Your task to perform on an android device: turn notification dots off Image 0: 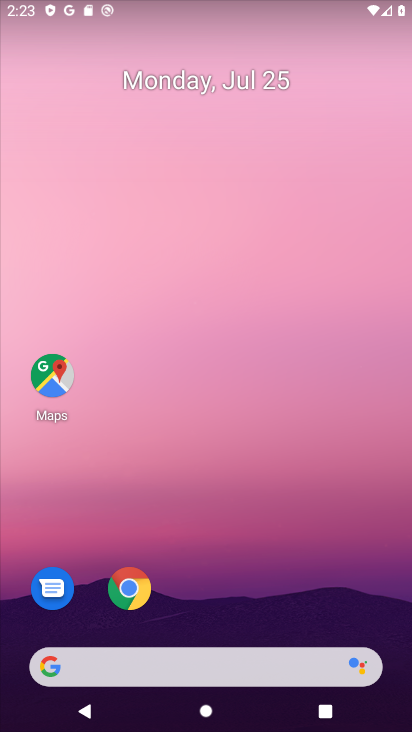
Step 0: press home button
Your task to perform on an android device: turn notification dots off Image 1: 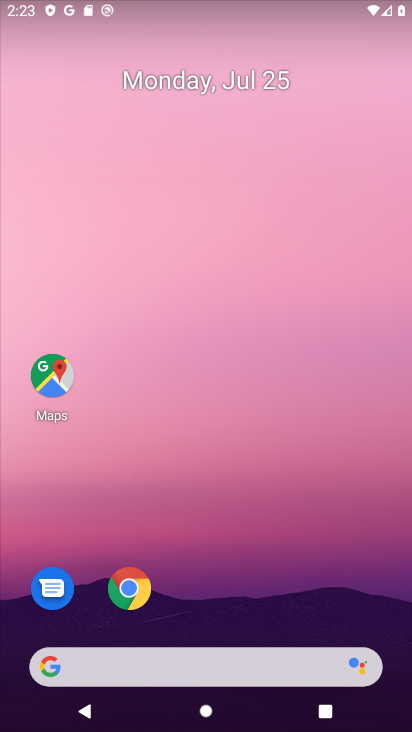
Step 1: drag from (209, 622) to (233, 7)
Your task to perform on an android device: turn notification dots off Image 2: 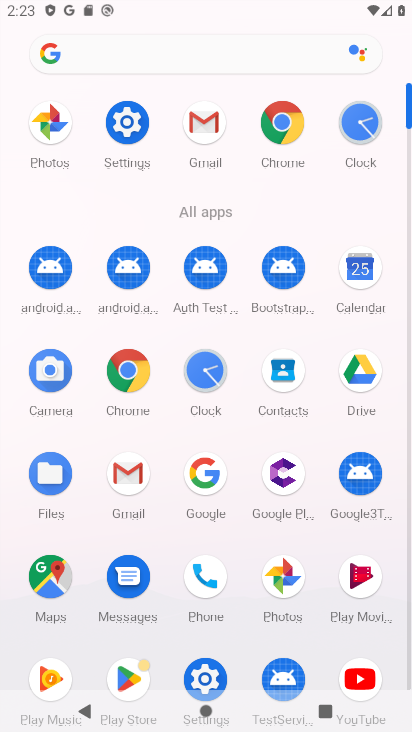
Step 2: click (125, 114)
Your task to perform on an android device: turn notification dots off Image 3: 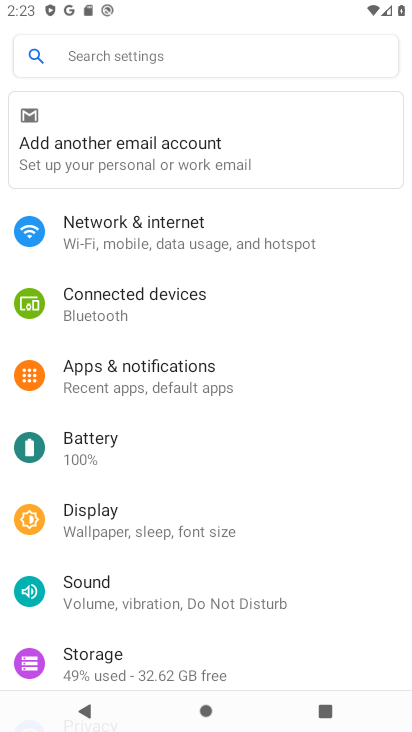
Step 3: click (243, 371)
Your task to perform on an android device: turn notification dots off Image 4: 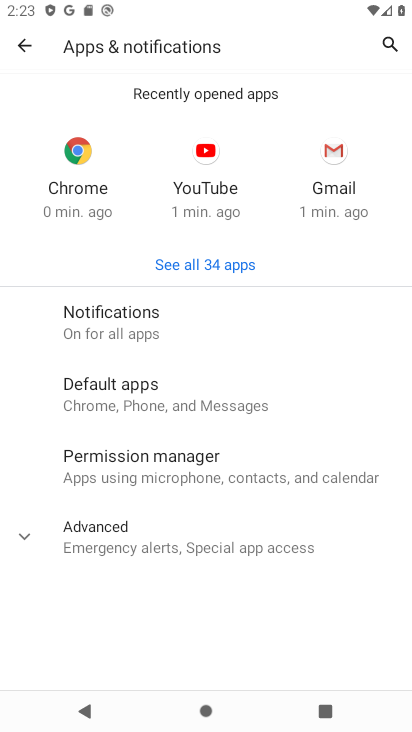
Step 4: click (170, 323)
Your task to perform on an android device: turn notification dots off Image 5: 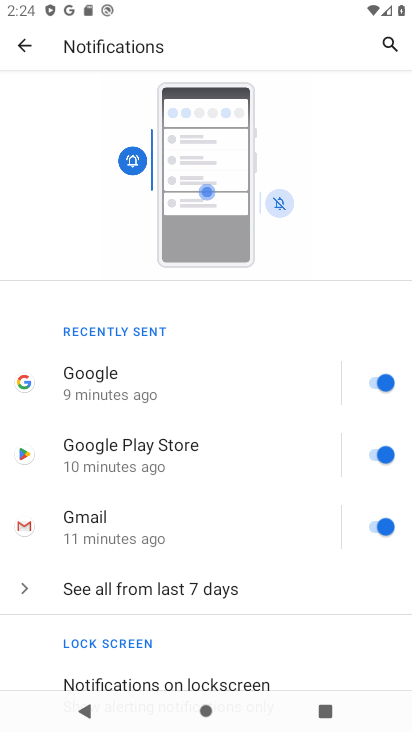
Step 5: drag from (242, 662) to (281, 57)
Your task to perform on an android device: turn notification dots off Image 6: 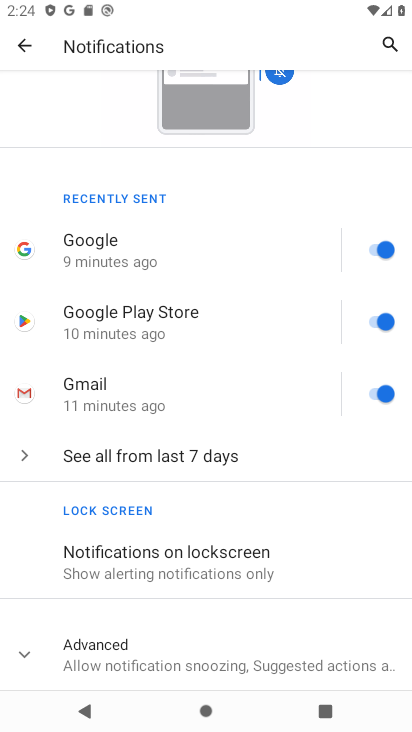
Step 6: click (27, 648)
Your task to perform on an android device: turn notification dots off Image 7: 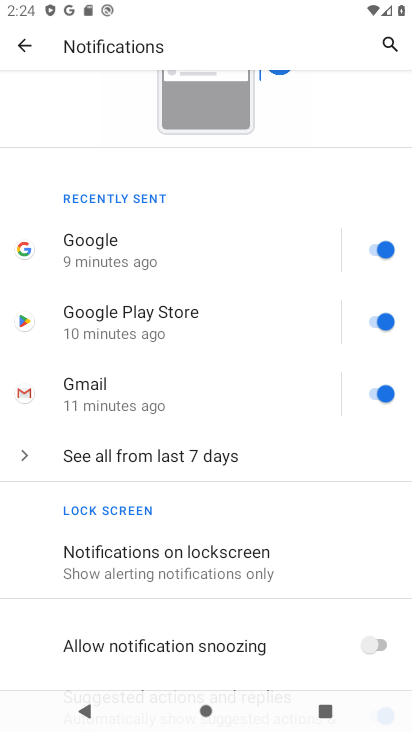
Step 7: drag from (191, 668) to (229, 13)
Your task to perform on an android device: turn notification dots off Image 8: 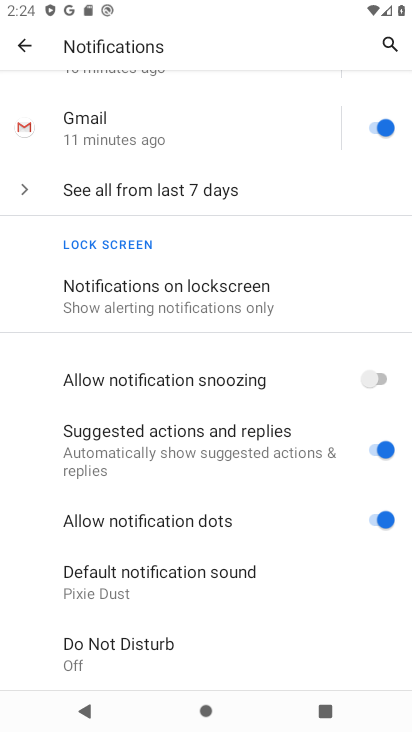
Step 8: drag from (27, 615) to (72, 167)
Your task to perform on an android device: turn notification dots off Image 9: 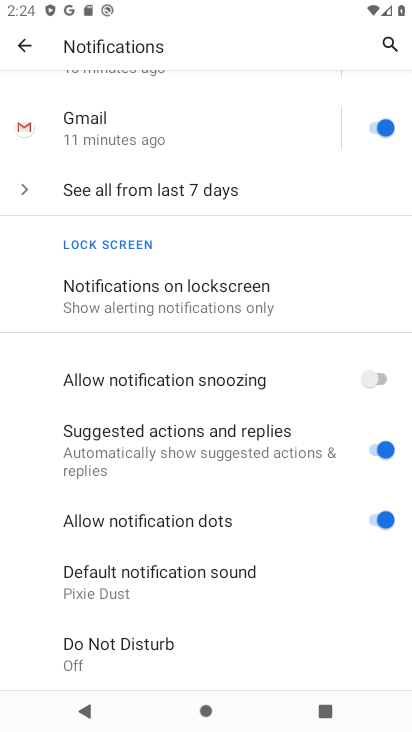
Step 9: click (378, 516)
Your task to perform on an android device: turn notification dots off Image 10: 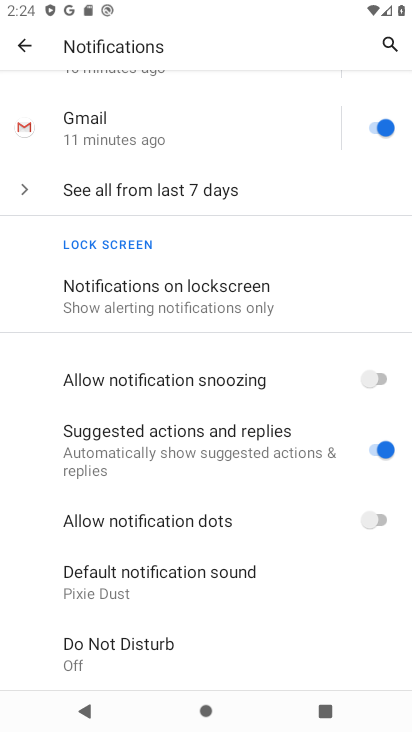
Step 10: task complete